Your task to perform on an android device: open the mobile data screen to see how much data has been used Image 0: 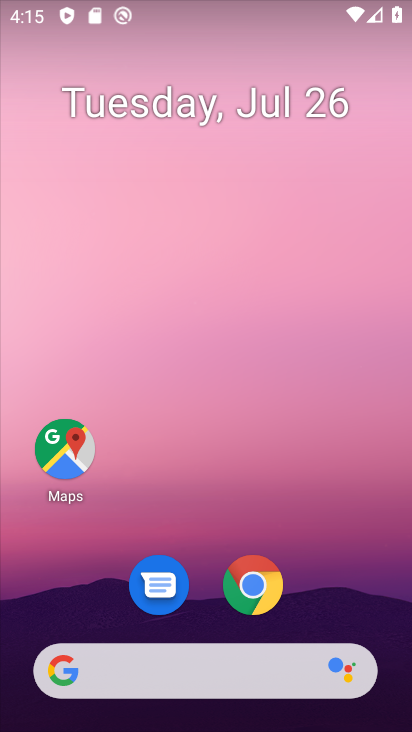
Step 0: drag from (346, 589) to (344, 100)
Your task to perform on an android device: open the mobile data screen to see how much data has been used Image 1: 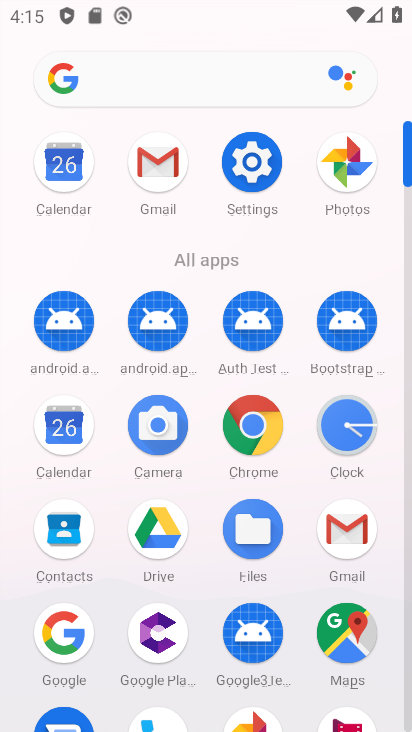
Step 1: click (256, 163)
Your task to perform on an android device: open the mobile data screen to see how much data has been used Image 2: 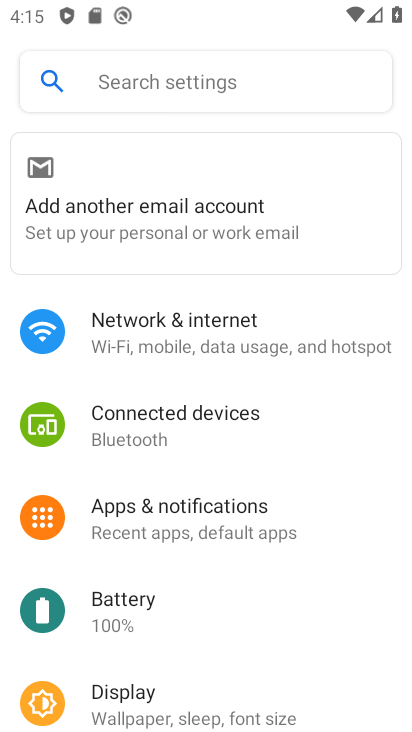
Step 2: click (236, 335)
Your task to perform on an android device: open the mobile data screen to see how much data has been used Image 3: 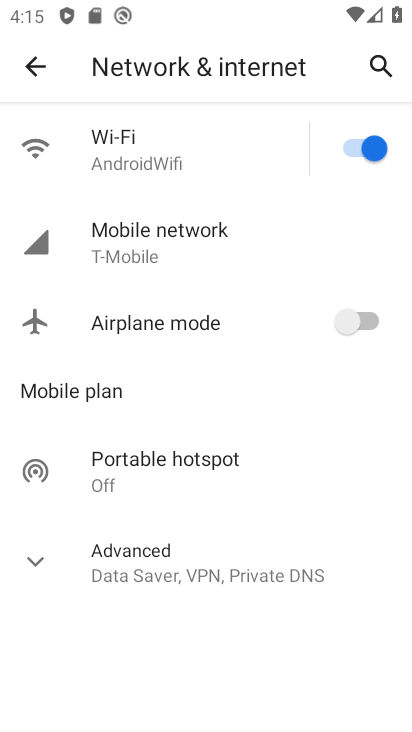
Step 3: click (193, 214)
Your task to perform on an android device: open the mobile data screen to see how much data has been used Image 4: 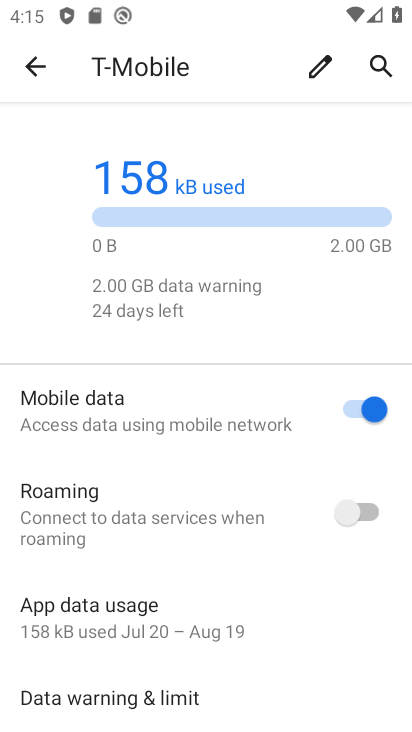
Step 4: task complete